Your task to perform on an android device: Go to Google Image 0: 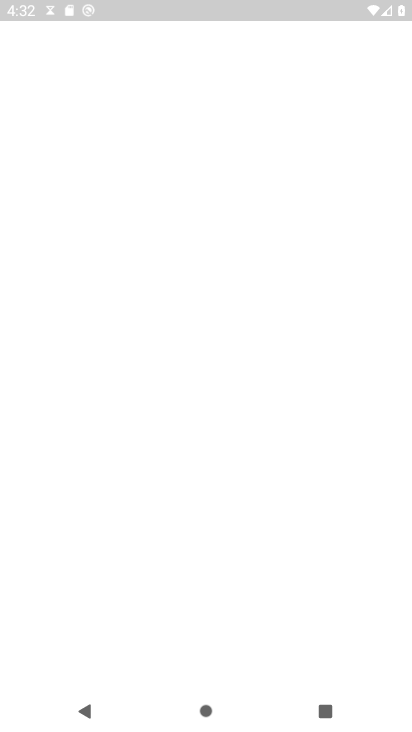
Step 0: drag from (247, 605) to (384, 458)
Your task to perform on an android device: Go to Google Image 1: 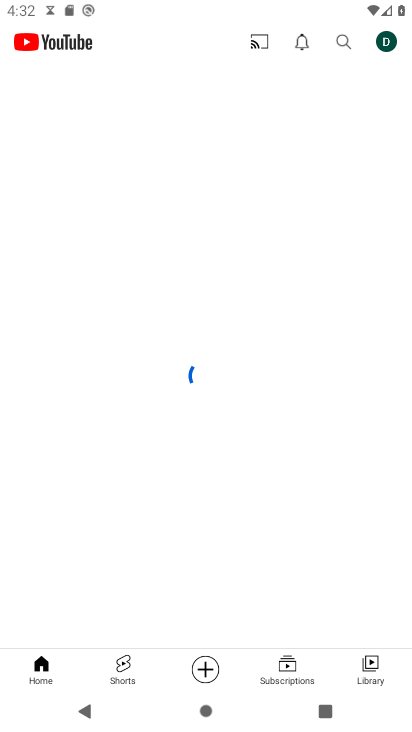
Step 1: press home button
Your task to perform on an android device: Go to Google Image 2: 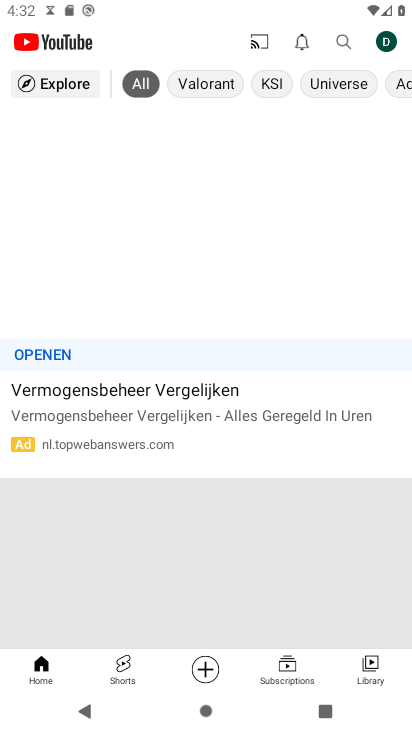
Step 2: click (374, 393)
Your task to perform on an android device: Go to Google Image 3: 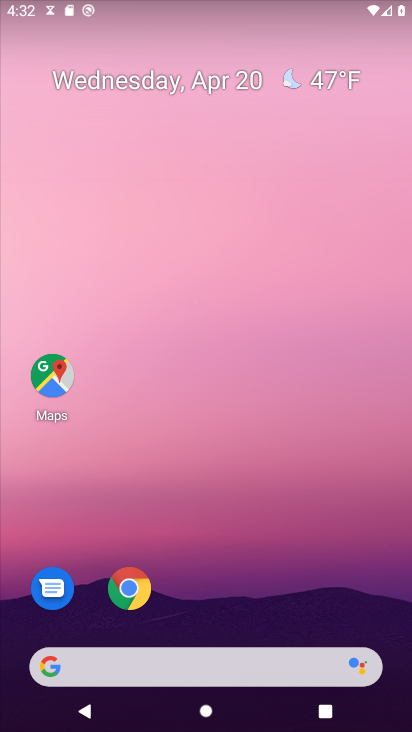
Step 3: drag from (228, 459) to (298, 37)
Your task to perform on an android device: Go to Google Image 4: 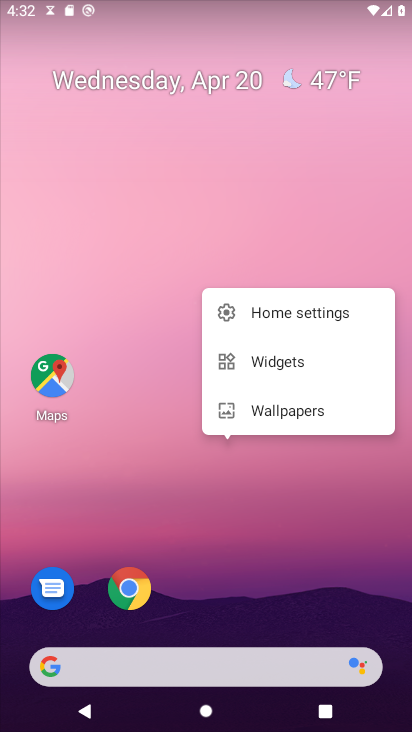
Step 4: drag from (251, 535) to (366, 85)
Your task to perform on an android device: Go to Google Image 5: 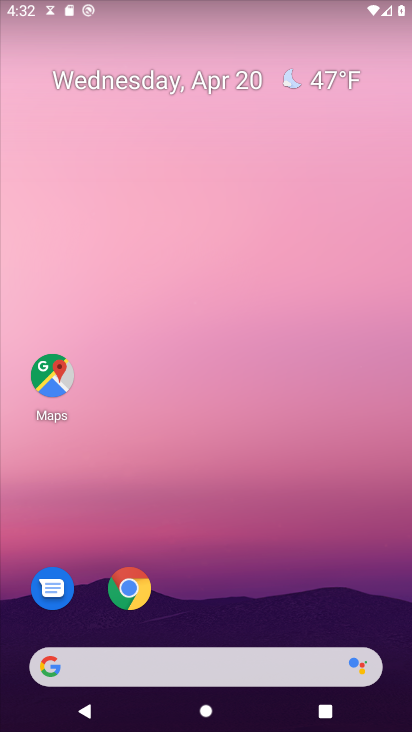
Step 5: drag from (275, 463) to (352, 45)
Your task to perform on an android device: Go to Google Image 6: 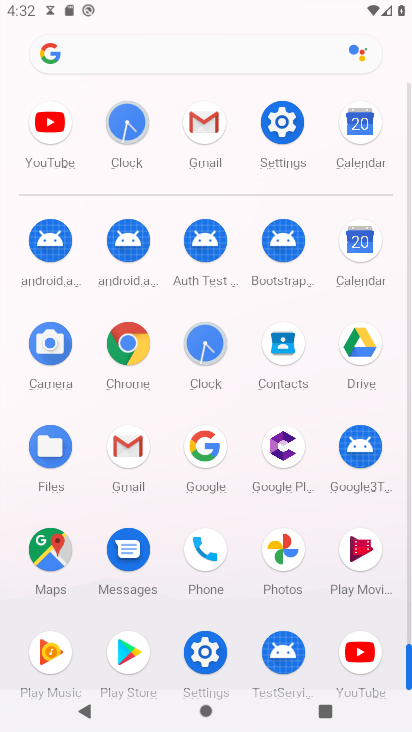
Step 6: click (204, 453)
Your task to perform on an android device: Go to Google Image 7: 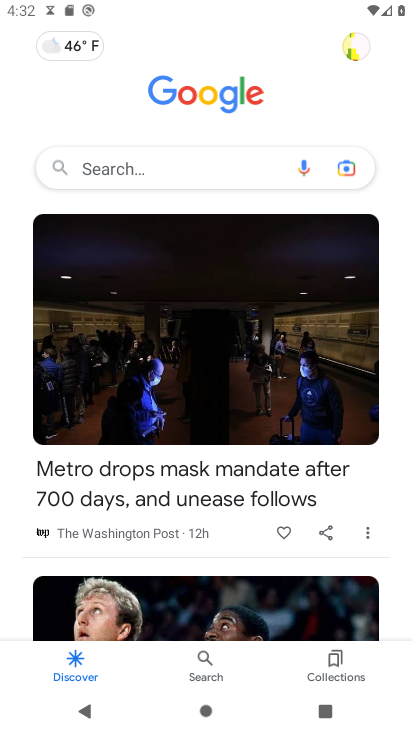
Step 7: task complete